Your task to perform on an android device: find photos in the google photos app Image 0: 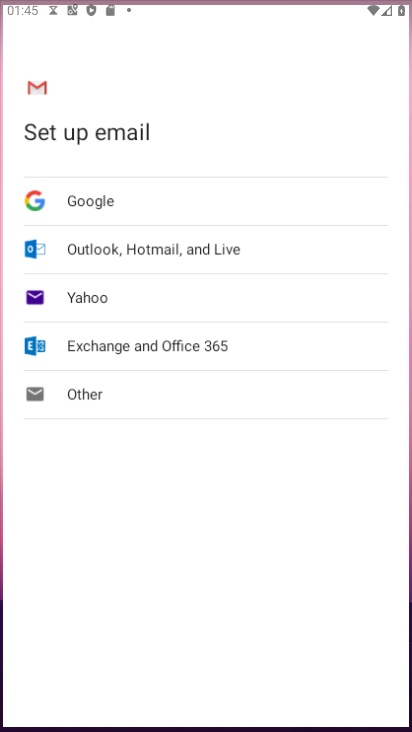
Step 0: drag from (242, 603) to (189, 144)
Your task to perform on an android device: find photos in the google photos app Image 1: 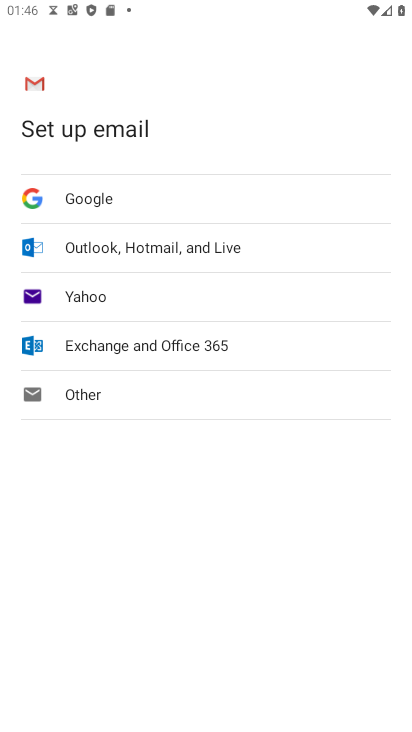
Step 1: press home button
Your task to perform on an android device: find photos in the google photos app Image 2: 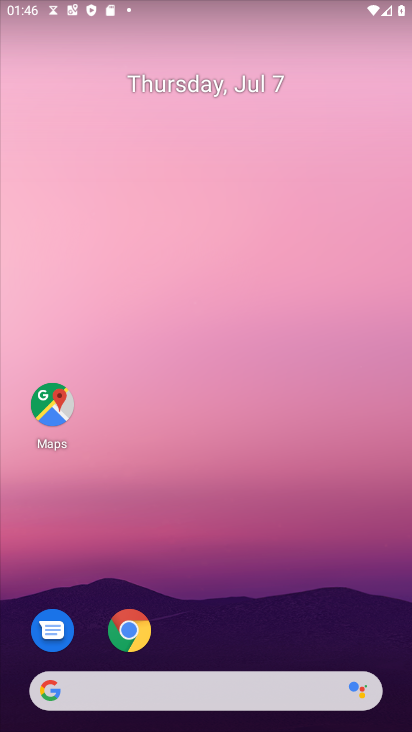
Step 2: drag from (242, 622) to (194, 222)
Your task to perform on an android device: find photos in the google photos app Image 3: 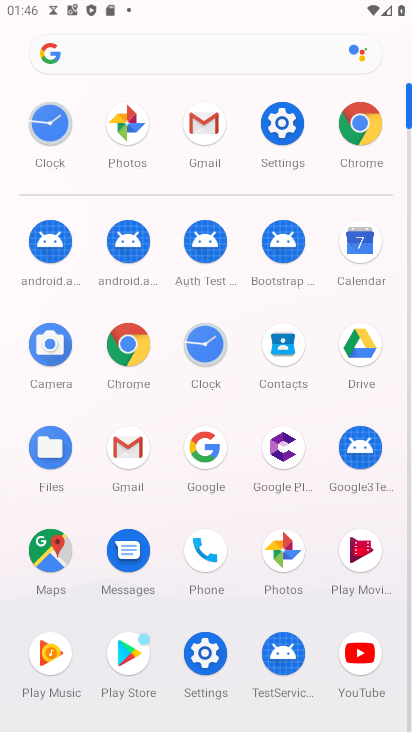
Step 3: click (136, 126)
Your task to perform on an android device: find photos in the google photos app Image 4: 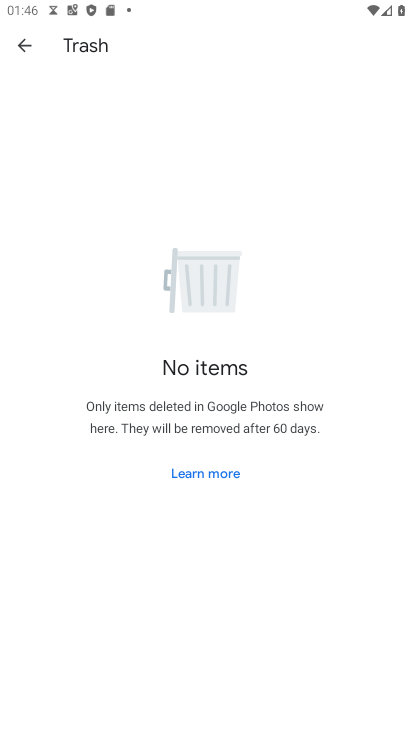
Step 4: click (24, 40)
Your task to perform on an android device: find photos in the google photos app Image 5: 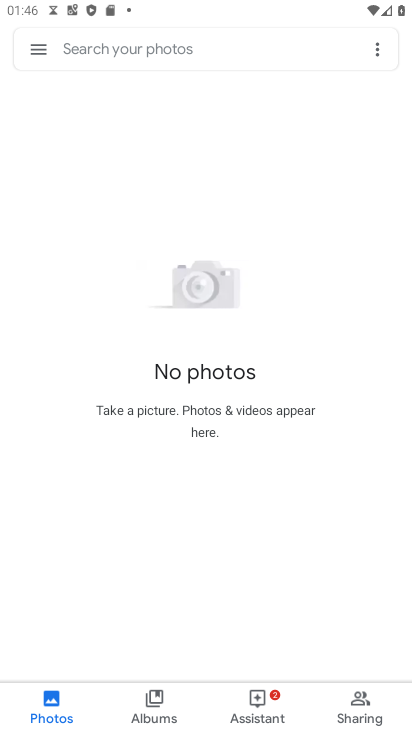
Step 5: task complete